Your task to perform on an android device: turn on javascript in the chrome app Image 0: 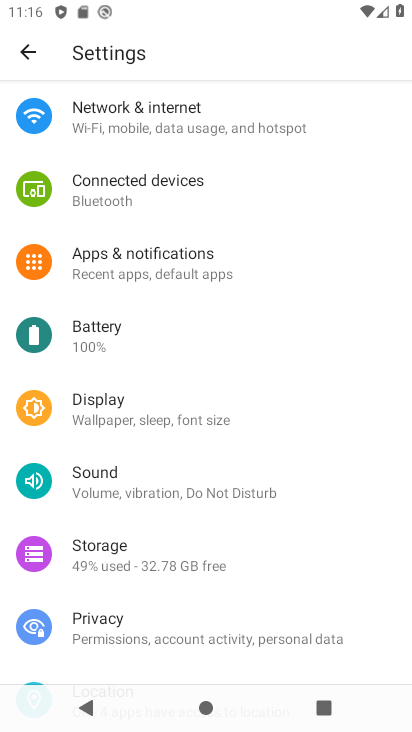
Step 0: press home button
Your task to perform on an android device: turn on javascript in the chrome app Image 1: 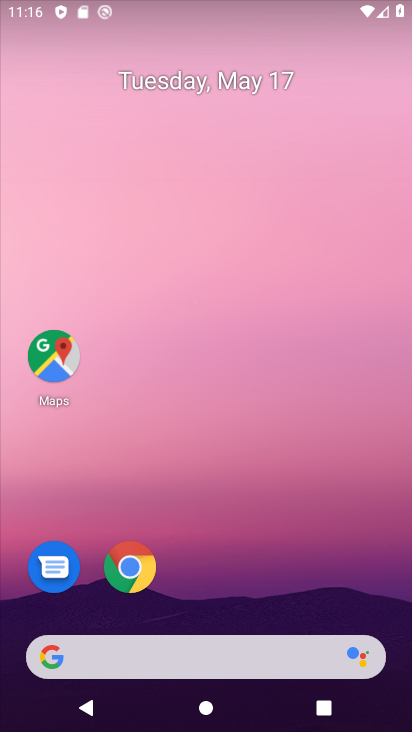
Step 1: drag from (367, 590) to (331, 118)
Your task to perform on an android device: turn on javascript in the chrome app Image 2: 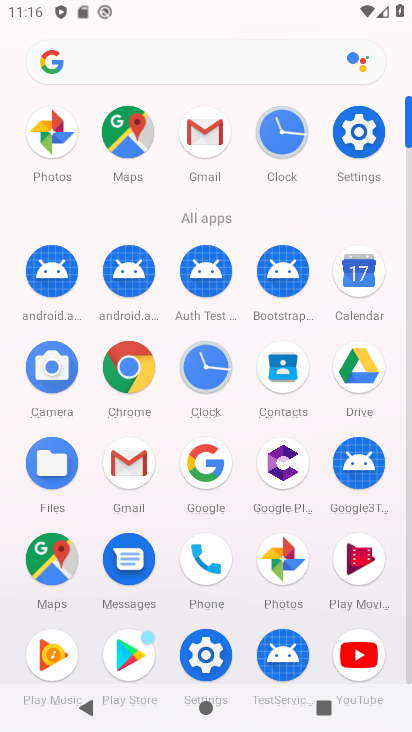
Step 2: click (125, 385)
Your task to perform on an android device: turn on javascript in the chrome app Image 3: 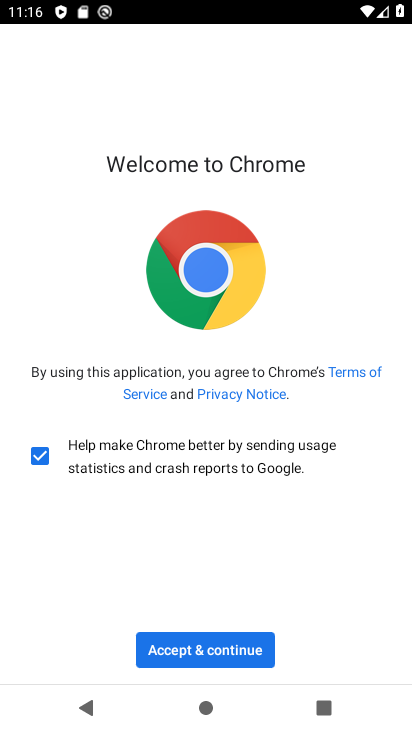
Step 3: click (252, 644)
Your task to perform on an android device: turn on javascript in the chrome app Image 4: 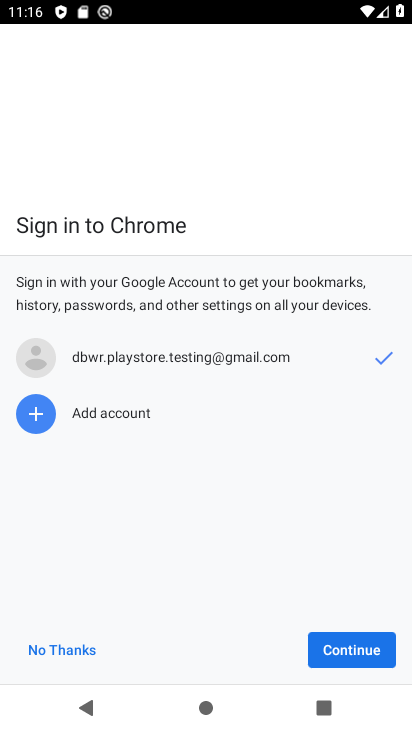
Step 4: click (356, 648)
Your task to perform on an android device: turn on javascript in the chrome app Image 5: 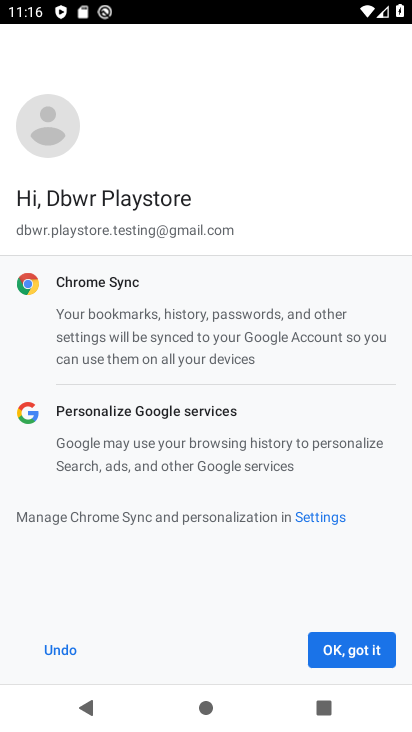
Step 5: click (356, 648)
Your task to perform on an android device: turn on javascript in the chrome app Image 6: 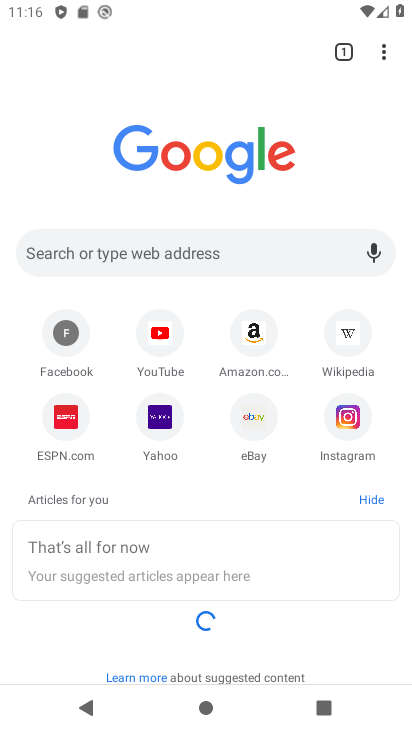
Step 6: drag from (384, 47) to (242, 432)
Your task to perform on an android device: turn on javascript in the chrome app Image 7: 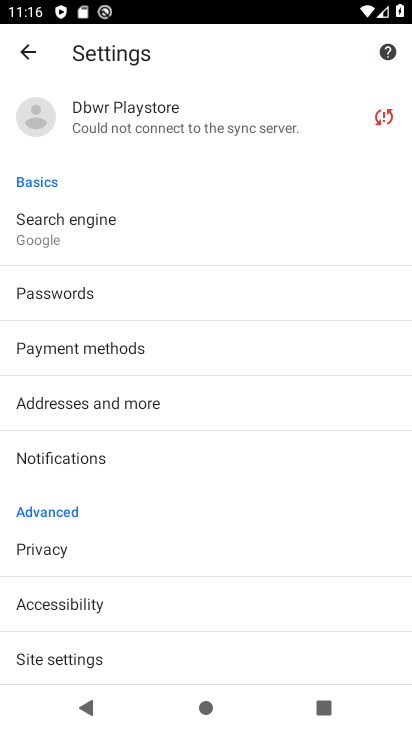
Step 7: click (202, 648)
Your task to perform on an android device: turn on javascript in the chrome app Image 8: 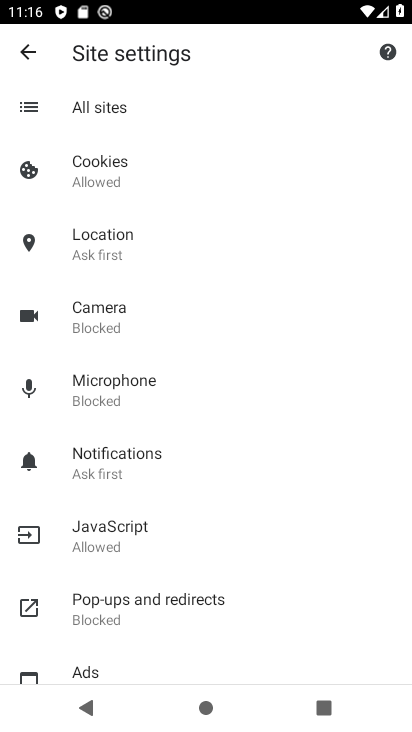
Step 8: click (178, 519)
Your task to perform on an android device: turn on javascript in the chrome app Image 9: 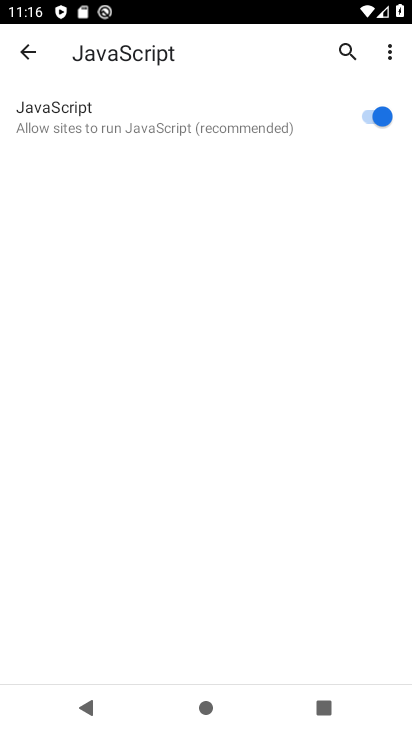
Step 9: task complete